Your task to perform on an android device: turn off location history Image 0: 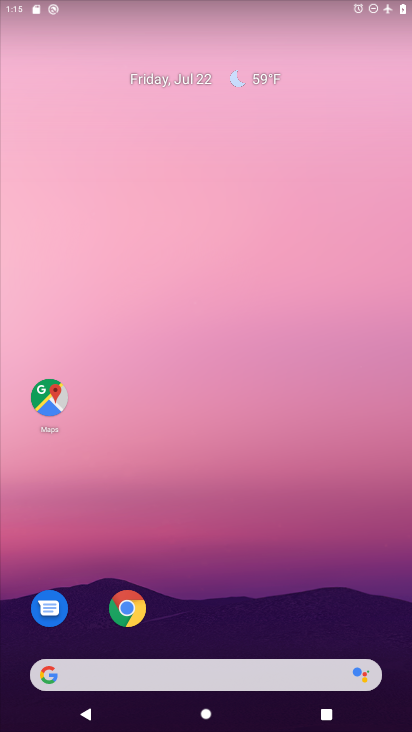
Step 0: drag from (387, 641) to (64, 0)
Your task to perform on an android device: turn off location history Image 1: 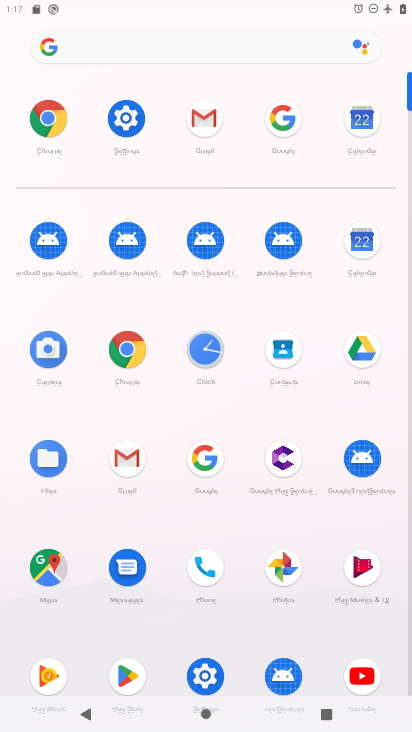
Step 1: click (201, 684)
Your task to perform on an android device: turn off location history Image 2: 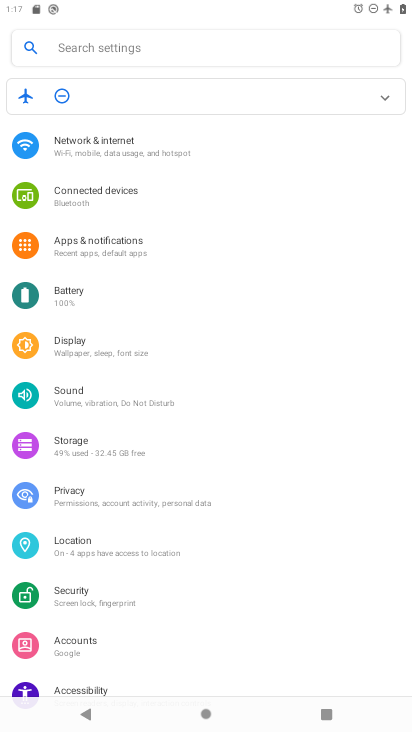
Step 2: click (81, 561)
Your task to perform on an android device: turn off location history Image 3: 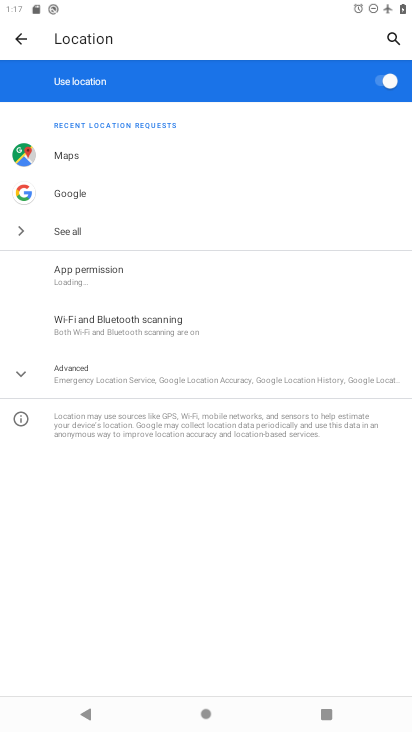
Step 3: click (65, 383)
Your task to perform on an android device: turn off location history Image 4: 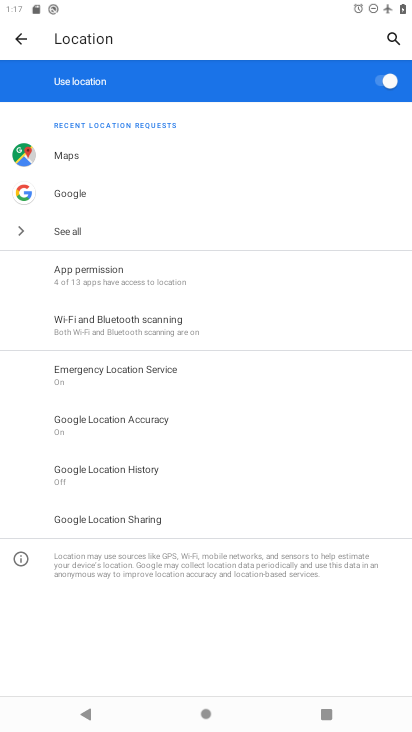
Step 4: click (117, 482)
Your task to perform on an android device: turn off location history Image 5: 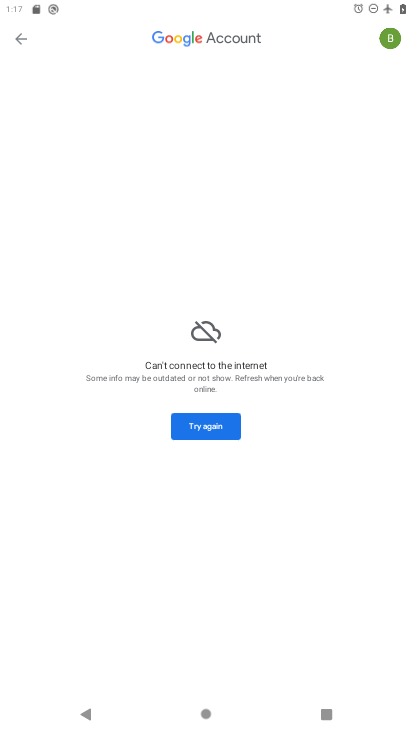
Step 5: task complete